Your task to perform on an android device: check storage Image 0: 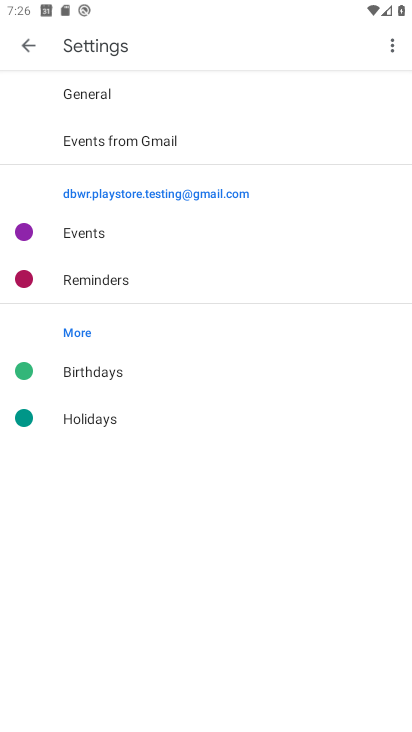
Step 0: press home button
Your task to perform on an android device: check storage Image 1: 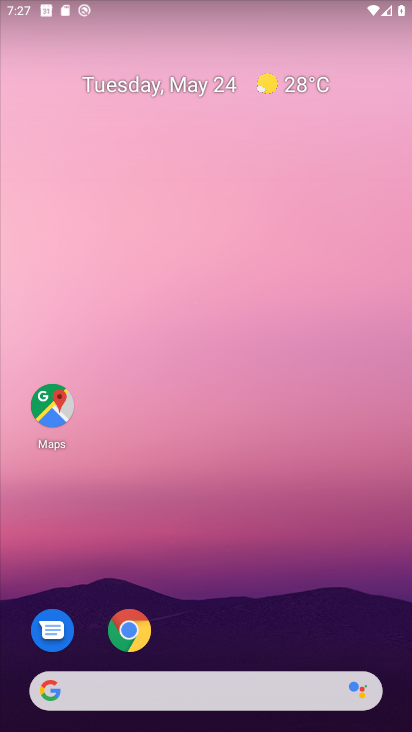
Step 1: drag from (249, 707) to (198, 40)
Your task to perform on an android device: check storage Image 2: 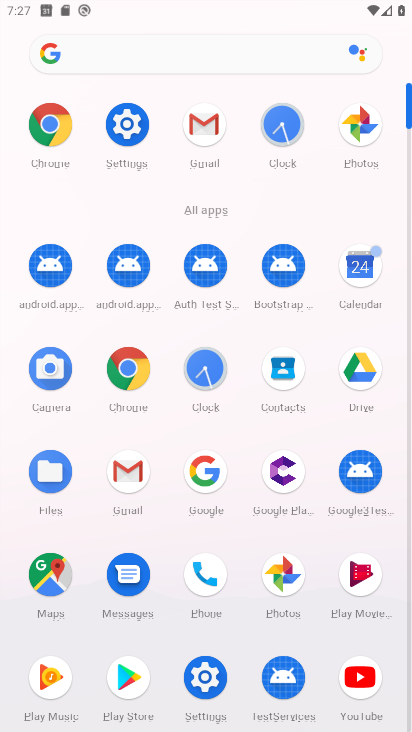
Step 2: click (142, 117)
Your task to perform on an android device: check storage Image 3: 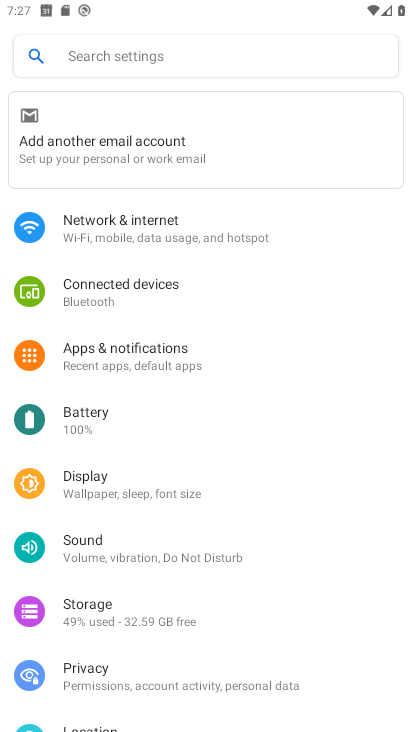
Step 3: click (132, 68)
Your task to perform on an android device: check storage Image 4: 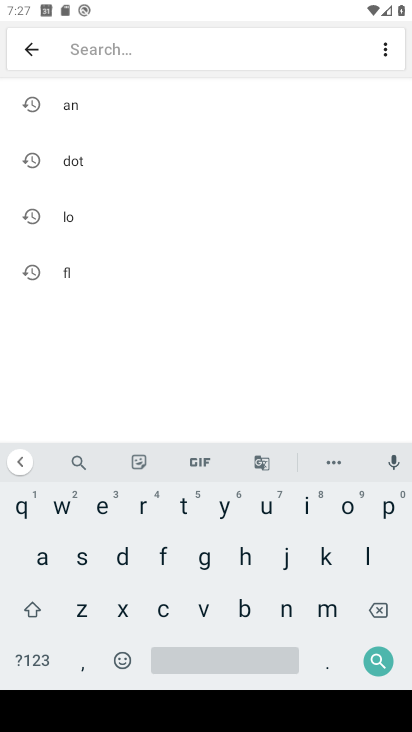
Step 4: click (86, 563)
Your task to perform on an android device: check storage Image 5: 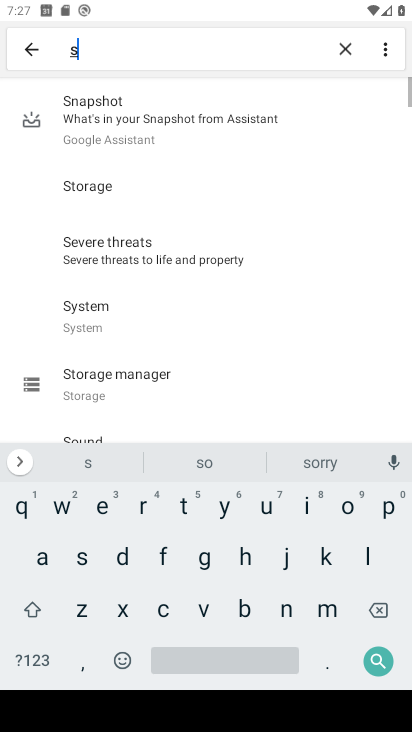
Step 5: click (186, 509)
Your task to perform on an android device: check storage Image 6: 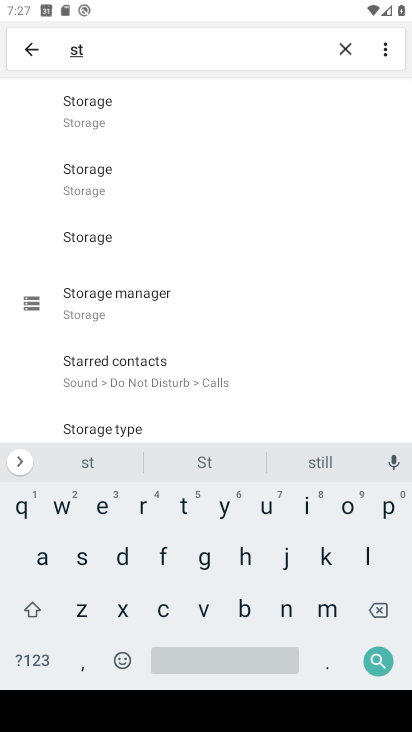
Step 6: click (113, 108)
Your task to perform on an android device: check storage Image 7: 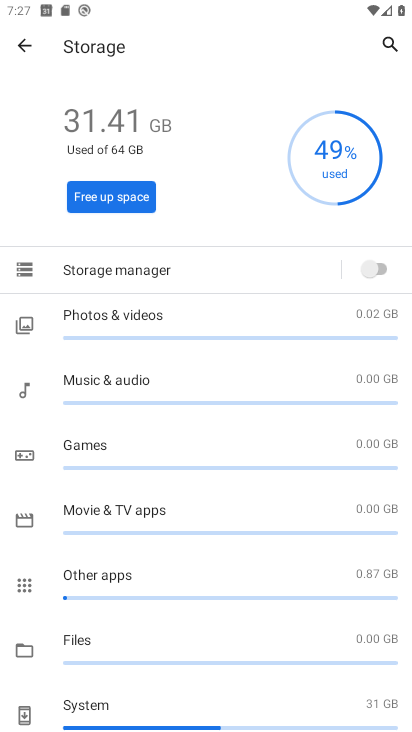
Step 7: task complete